Your task to perform on an android device: Open wifi settings Image 0: 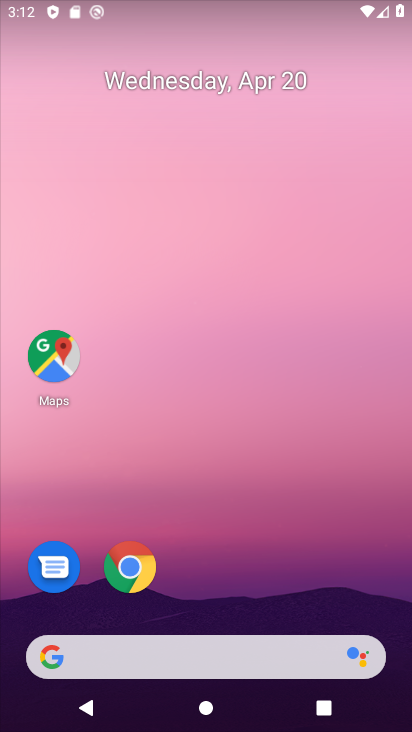
Step 0: drag from (371, 533) to (312, 75)
Your task to perform on an android device: Open wifi settings Image 1: 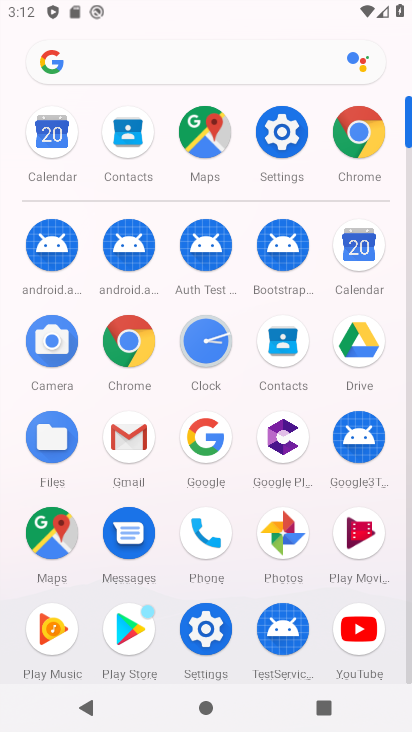
Step 1: click (291, 149)
Your task to perform on an android device: Open wifi settings Image 2: 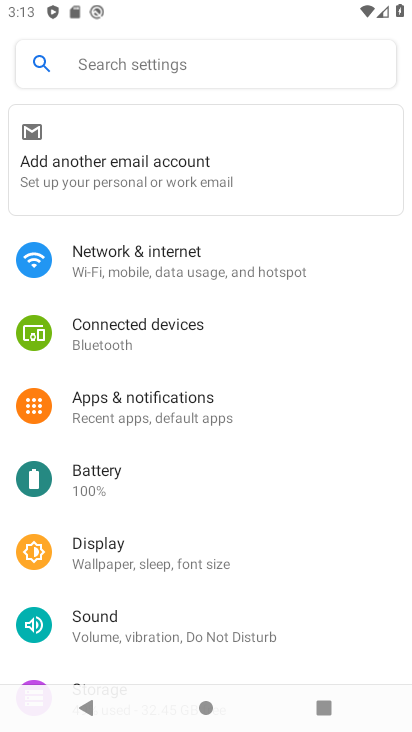
Step 2: click (288, 259)
Your task to perform on an android device: Open wifi settings Image 3: 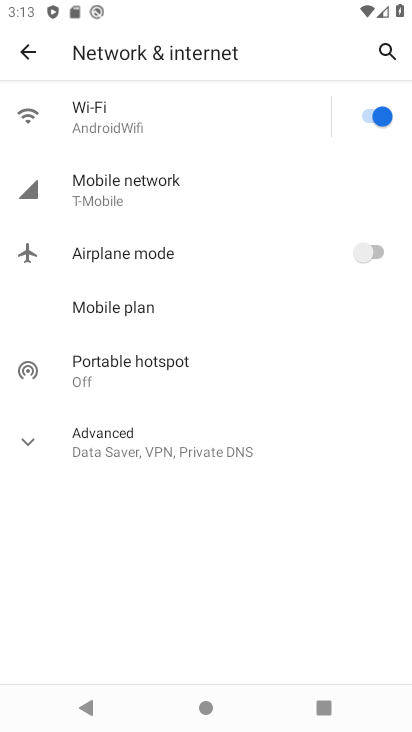
Step 3: click (159, 120)
Your task to perform on an android device: Open wifi settings Image 4: 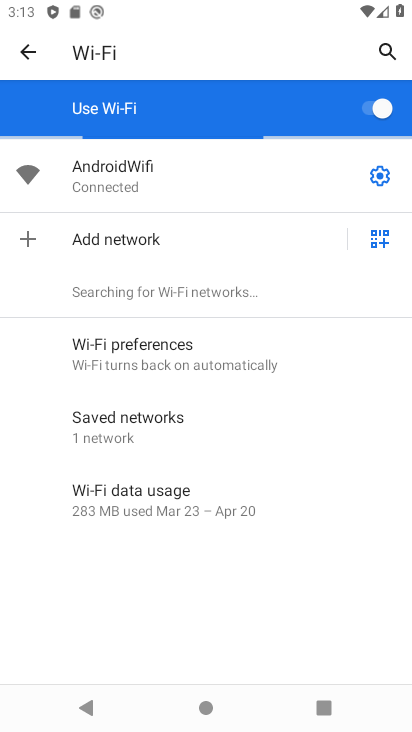
Step 4: task complete